Your task to perform on an android device: change the clock style Image 0: 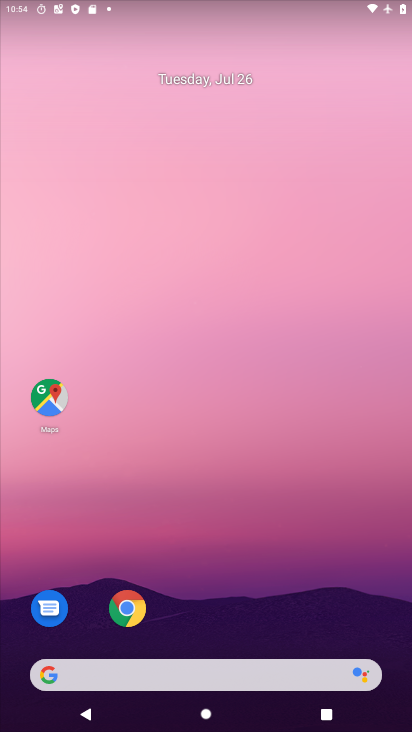
Step 0: drag from (236, 636) to (271, 218)
Your task to perform on an android device: change the clock style Image 1: 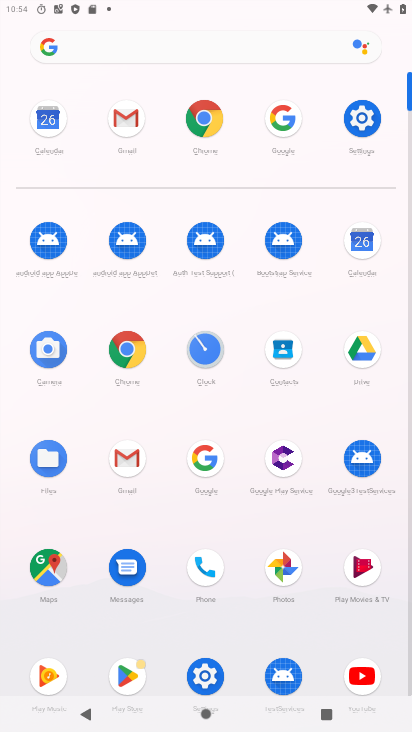
Step 1: click (203, 348)
Your task to perform on an android device: change the clock style Image 2: 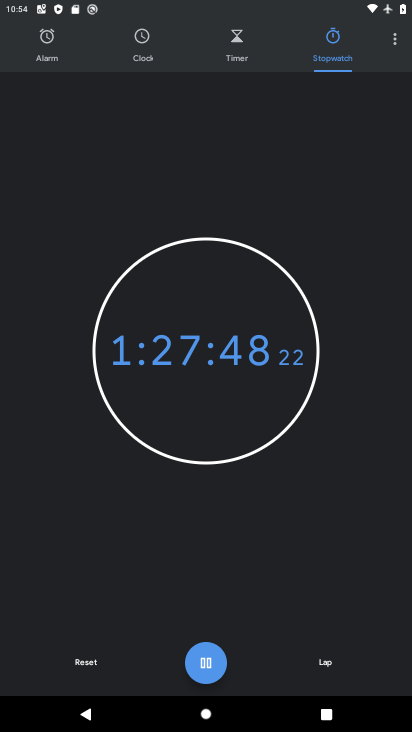
Step 2: click (392, 35)
Your task to perform on an android device: change the clock style Image 3: 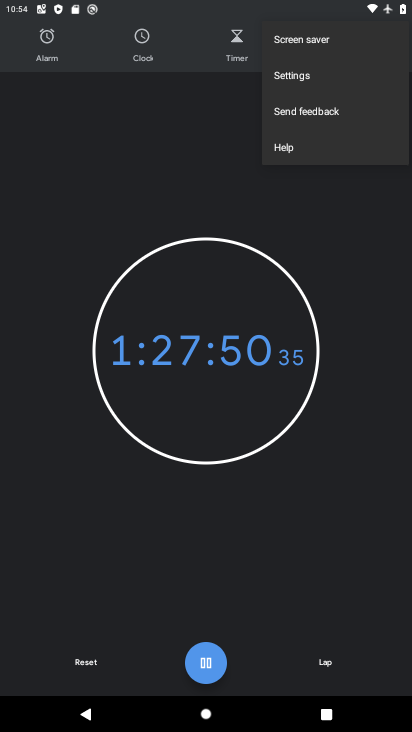
Step 3: click (282, 76)
Your task to perform on an android device: change the clock style Image 4: 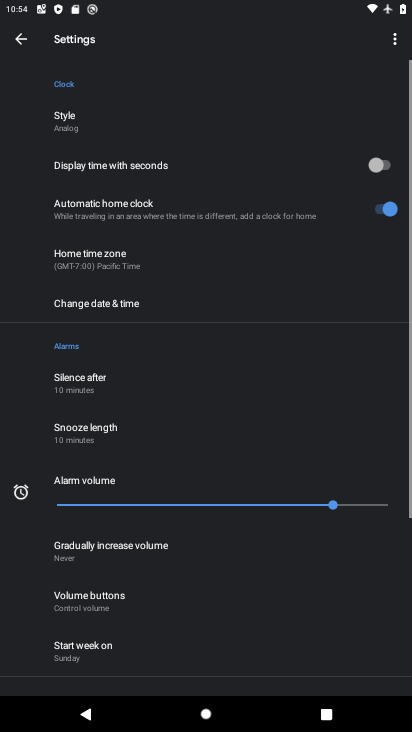
Step 4: click (120, 115)
Your task to perform on an android device: change the clock style Image 5: 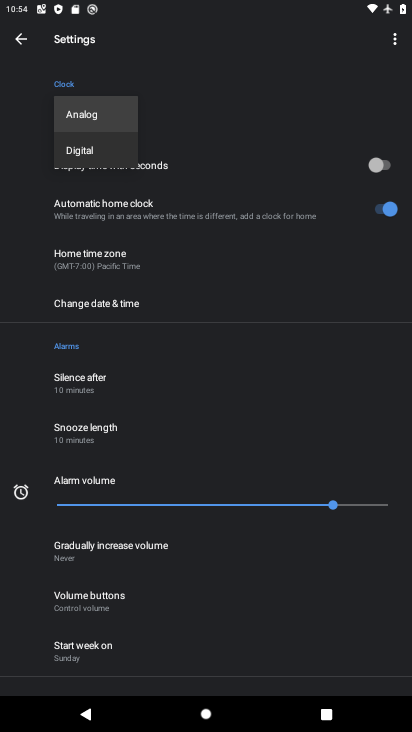
Step 5: click (110, 141)
Your task to perform on an android device: change the clock style Image 6: 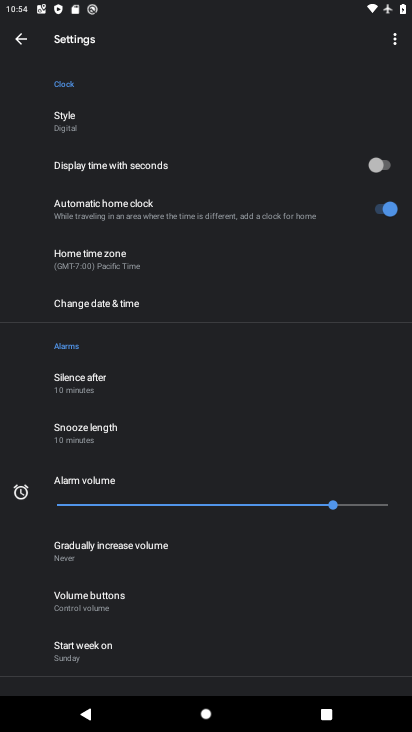
Step 6: task complete